Your task to perform on an android device: change notifications settings Image 0: 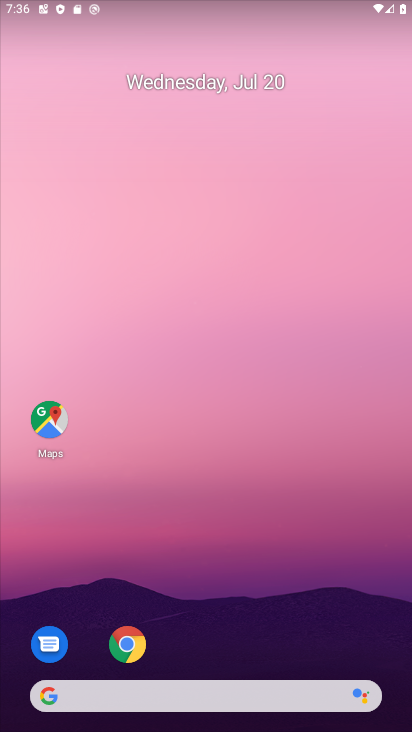
Step 0: drag from (194, 680) to (174, 418)
Your task to perform on an android device: change notifications settings Image 1: 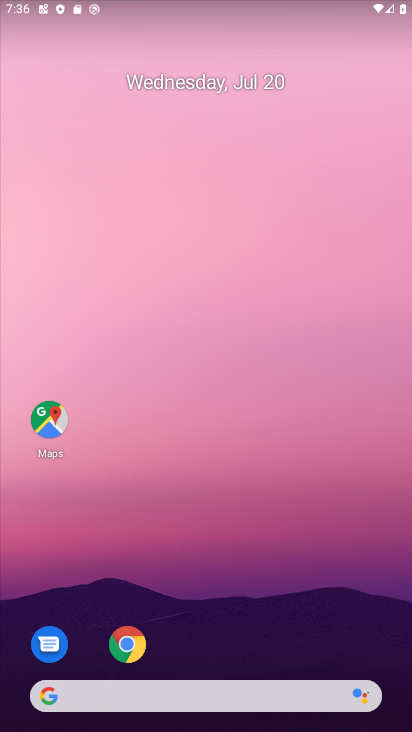
Step 1: drag from (176, 633) to (190, 313)
Your task to perform on an android device: change notifications settings Image 2: 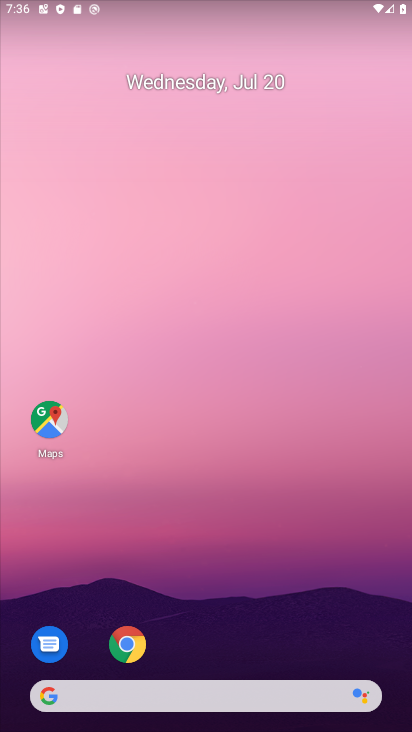
Step 2: drag from (228, 662) to (225, 433)
Your task to perform on an android device: change notifications settings Image 3: 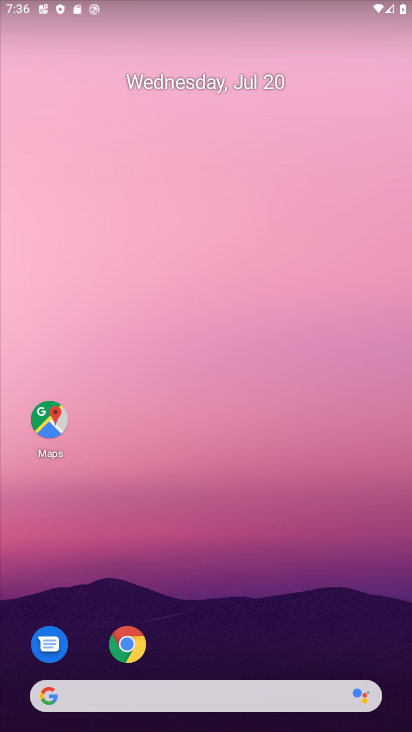
Step 3: drag from (169, 717) to (172, 532)
Your task to perform on an android device: change notifications settings Image 4: 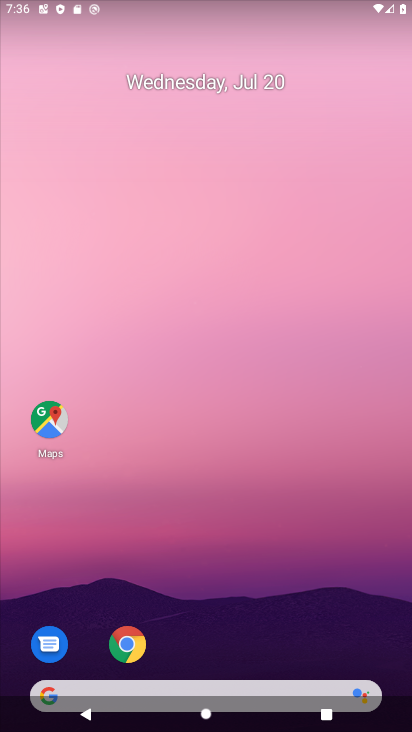
Step 4: drag from (223, 627) to (309, 164)
Your task to perform on an android device: change notifications settings Image 5: 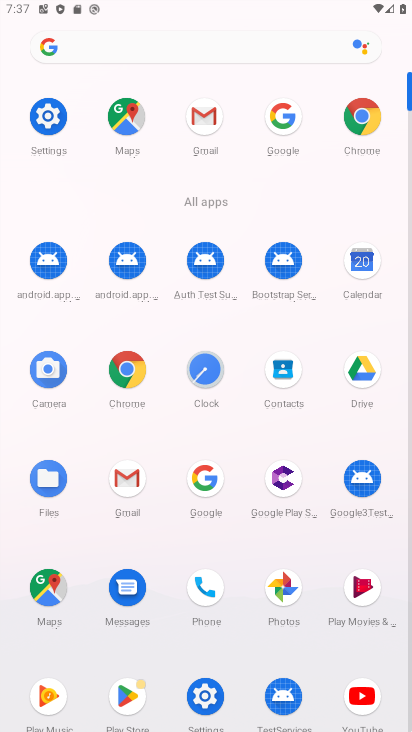
Step 5: click (29, 115)
Your task to perform on an android device: change notifications settings Image 6: 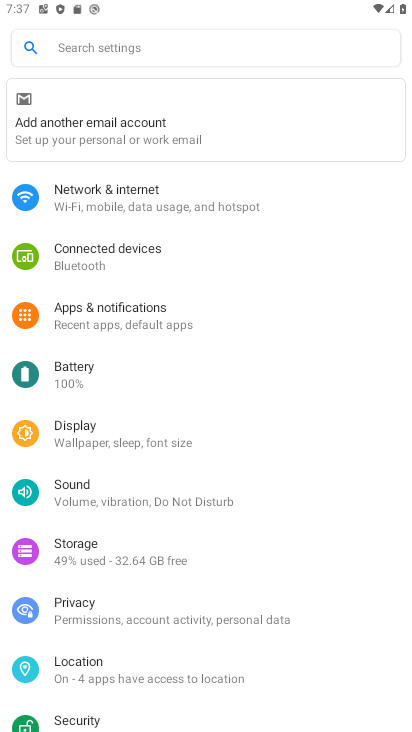
Step 6: click (93, 311)
Your task to perform on an android device: change notifications settings Image 7: 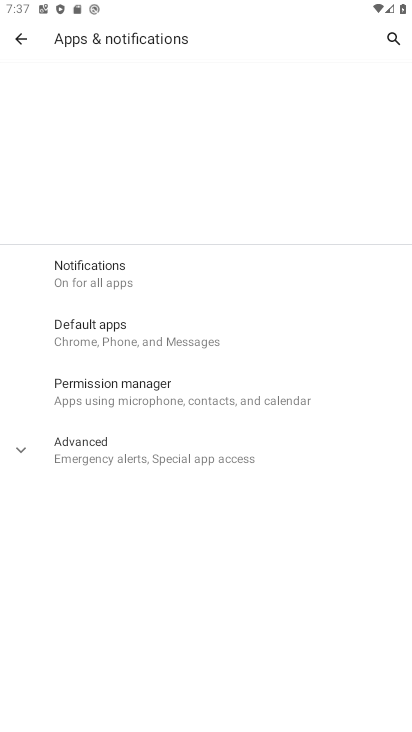
Step 7: click (94, 422)
Your task to perform on an android device: change notifications settings Image 8: 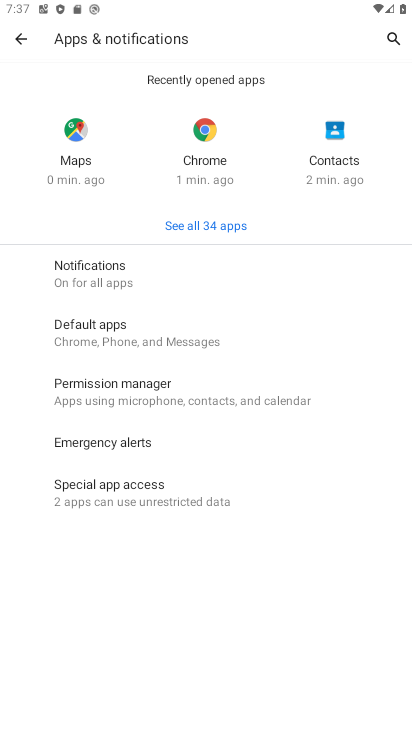
Step 8: click (103, 259)
Your task to perform on an android device: change notifications settings Image 9: 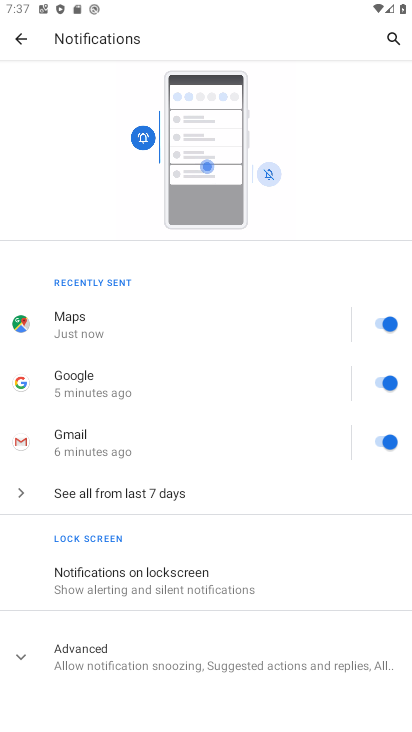
Step 9: click (381, 324)
Your task to perform on an android device: change notifications settings Image 10: 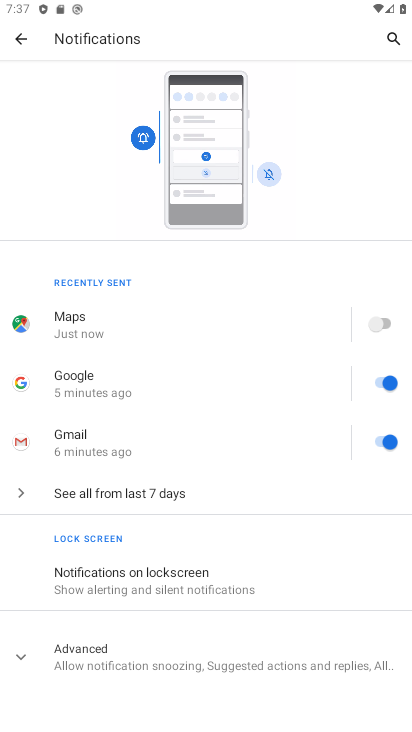
Step 10: click (379, 390)
Your task to perform on an android device: change notifications settings Image 11: 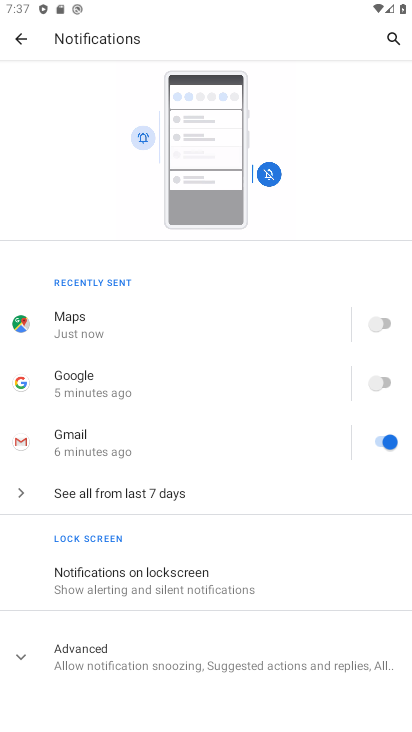
Step 11: click (378, 443)
Your task to perform on an android device: change notifications settings Image 12: 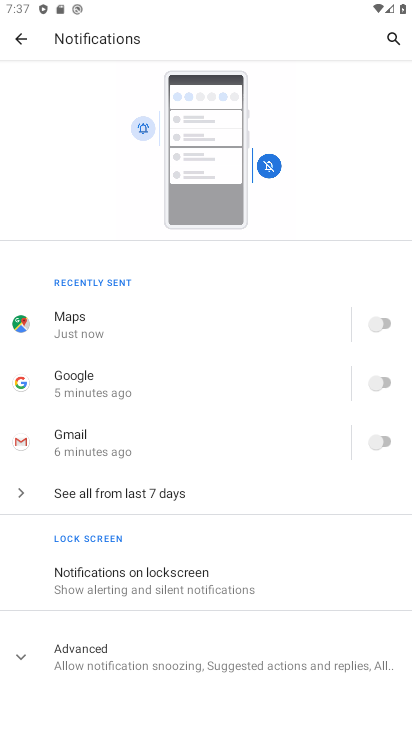
Step 12: click (135, 493)
Your task to perform on an android device: change notifications settings Image 13: 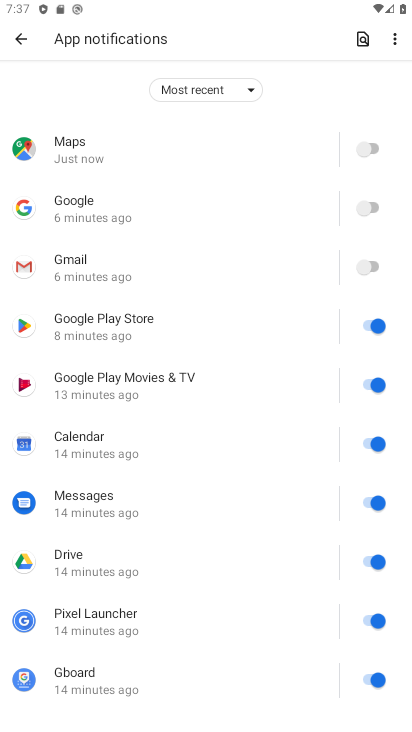
Step 13: click (370, 389)
Your task to perform on an android device: change notifications settings Image 14: 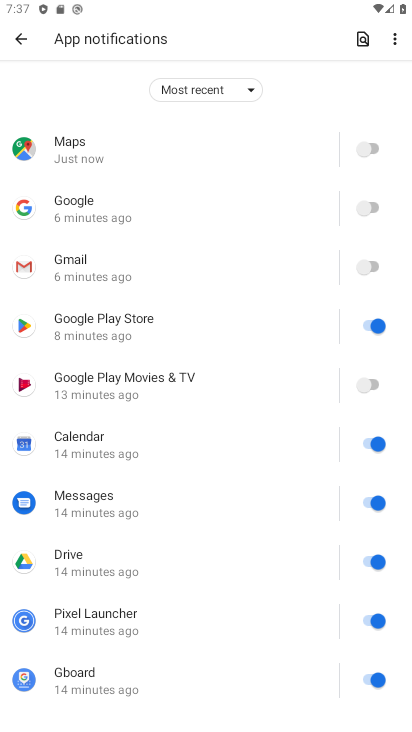
Step 14: click (369, 331)
Your task to perform on an android device: change notifications settings Image 15: 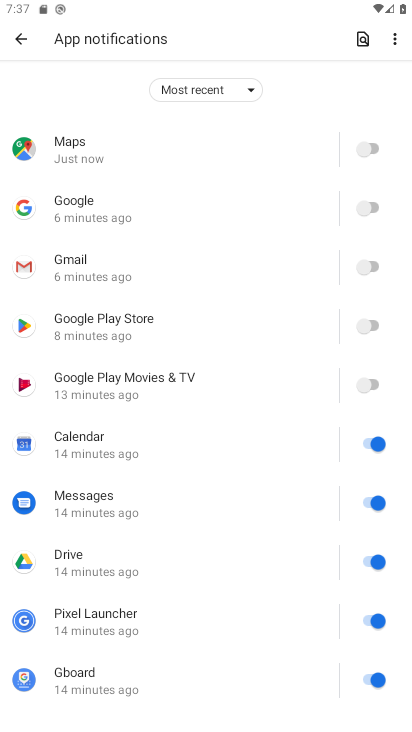
Step 15: click (366, 452)
Your task to perform on an android device: change notifications settings Image 16: 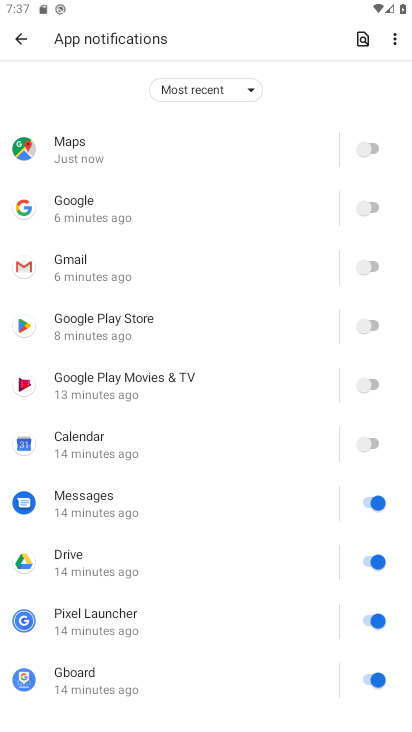
Step 16: click (376, 502)
Your task to perform on an android device: change notifications settings Image 17: 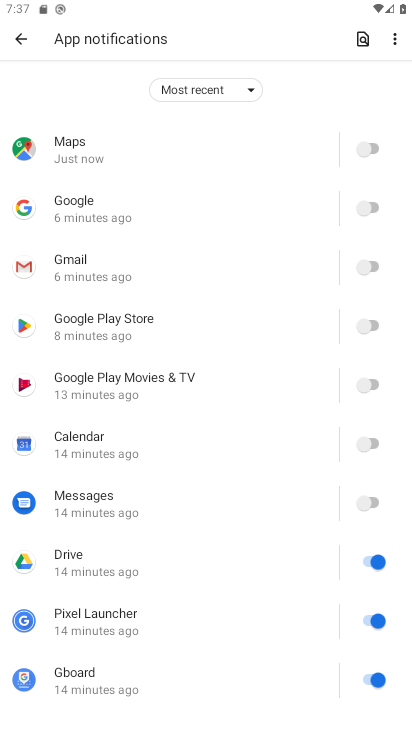
Step 17: click (372, 568)
Your task to perform on an android device: change notifications settings Image 18: 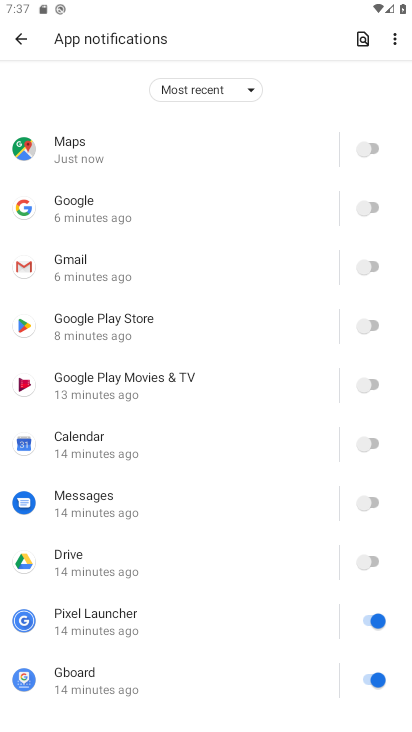
Step 18: click (366, 617)
Your task to perform on an android device: change notifications settings Image 19: 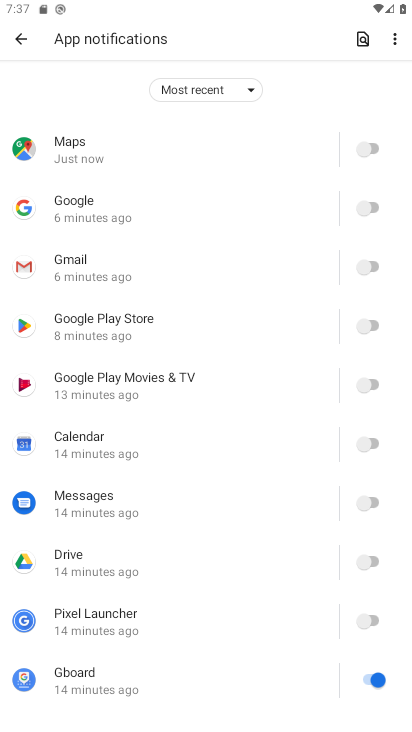
Step 19: click (371, 679)
Your task to perform on an android device: change notifications settings Image 20: 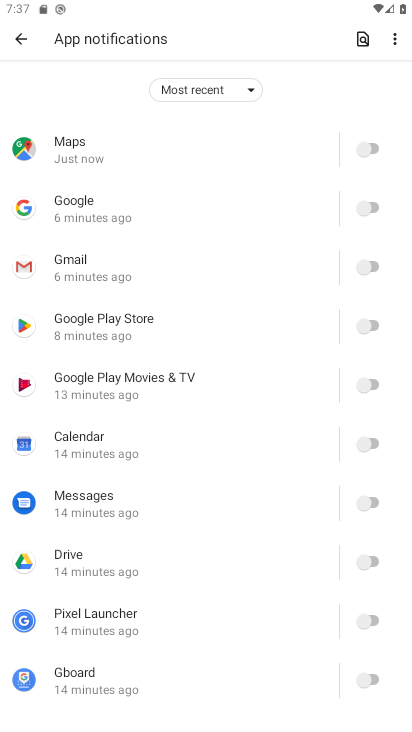
Step 20: task complete